Your task to perform on an android device: turn off data saver in the chrome app Image 0: 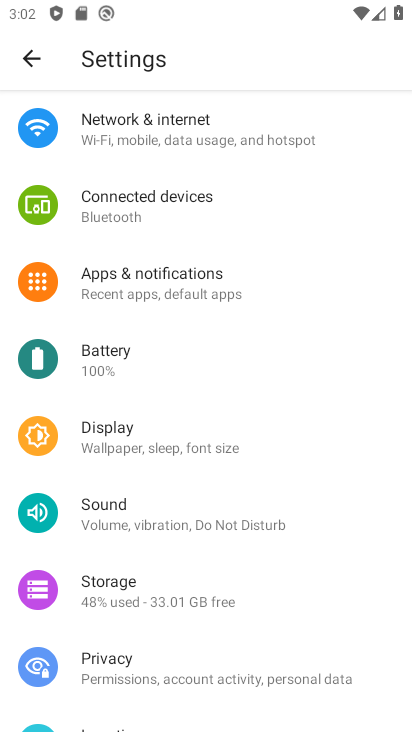
Step 0: press home button
Your task to perform on an android device: turn off data saver in the chrome app Image 1: 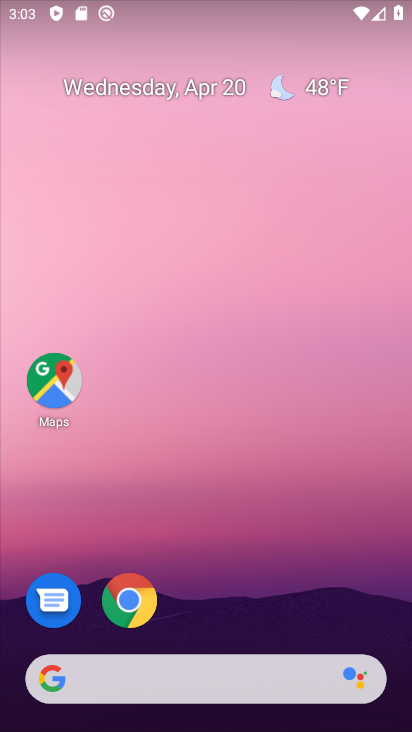
Step 1: drag from (298, 567) to (251, 52)
Your task to perform on an android device: turn off data saver in the chrome app Image 2: 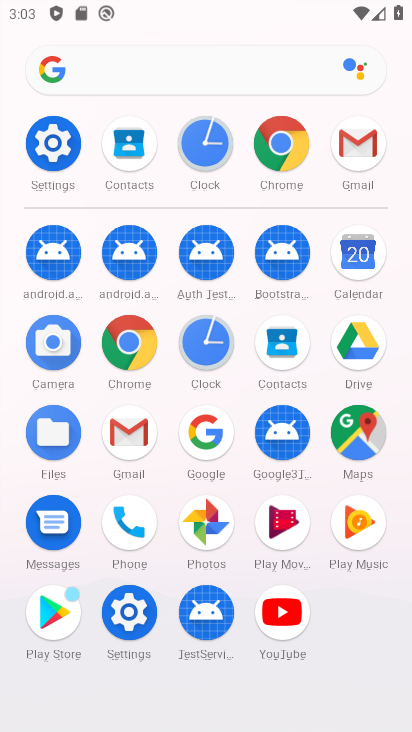
Step 2: click (258, 146)
Your task to perform on an android device: turn off data saver in the chrome app Image 3: 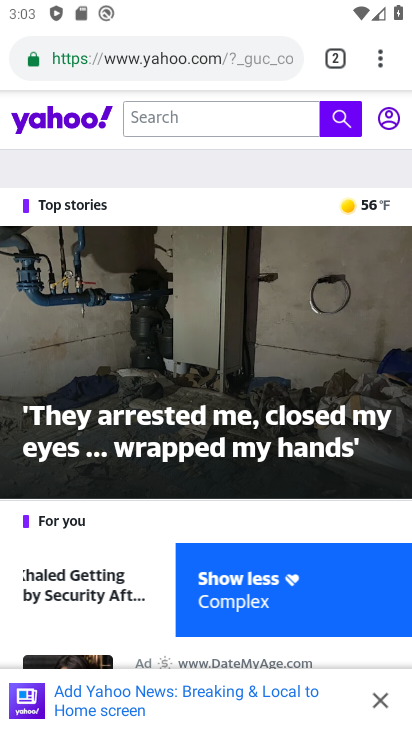
Step 3: drag from (382, 56) to (192, 631)
Your task to perform on an android device: turn off data saver in the chrome app Image 4: 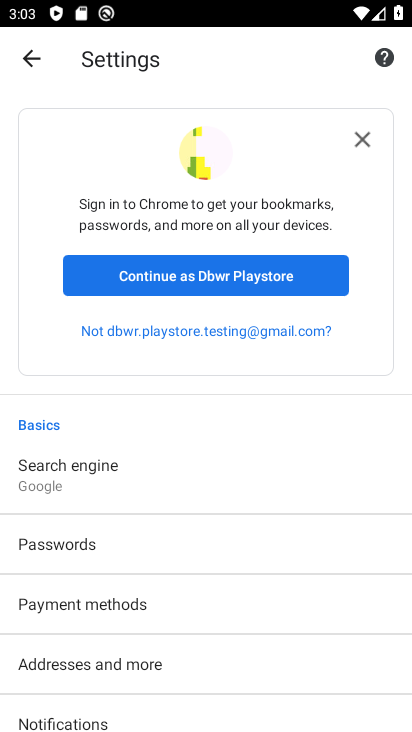
Step 4: drag from (167, 609) to (211, 341)
Your task to perform on an android device: turn off data saver in the chrome app Image 5: 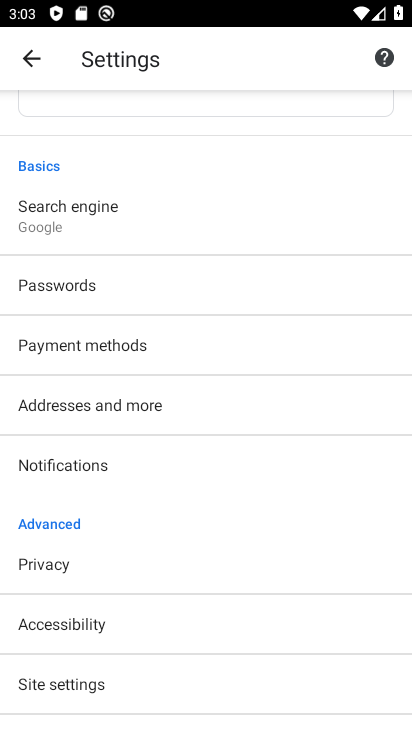
Step 5: drag from (182, 622) to (245, 266)
Your task to perform on an android device: turn off data saver in the chrome app Image 6: 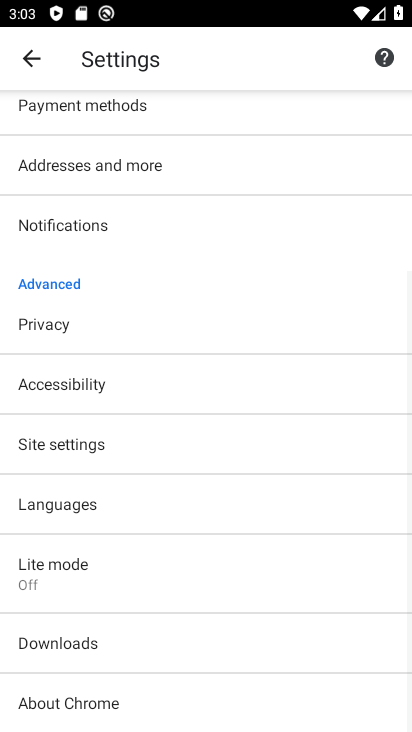
Step 6: click (135, 581)
Your task to perform on an android device: turn off data saver in the chrome app Image 7: 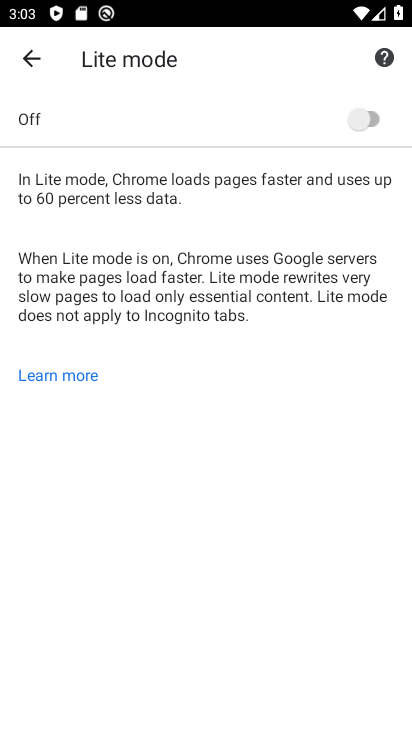
Step 7: task complete